Your task to perform on an android device: Go to Wikipedia Image 0: 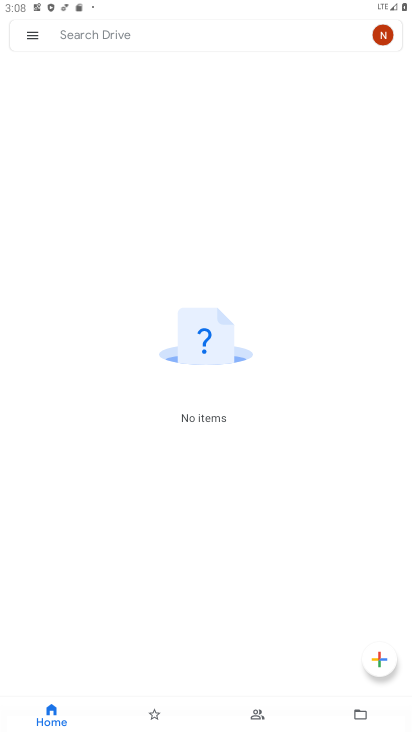
Step 0: press home button
Your task to perform on an android device: Go to Wikipedia Image 1: 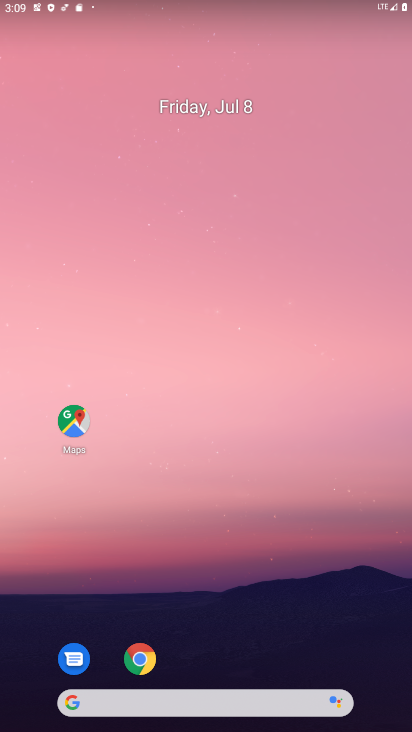
Step 1: click (151, 657)
Your task to perform on an android device: Go to Wikipedia Image 2: 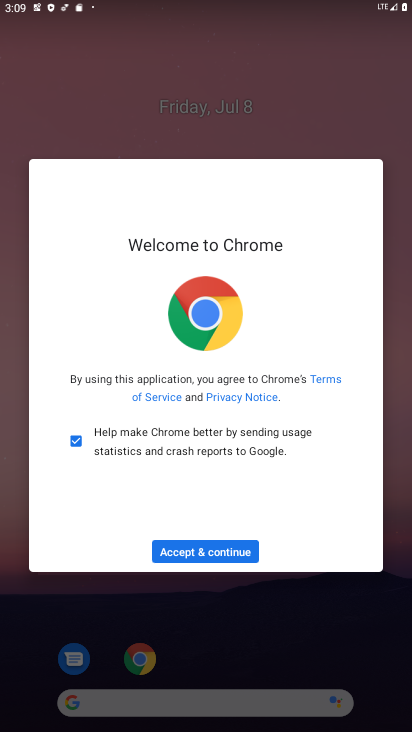
Step 2: click (232, 553)
Your task to perform on an android device: Go to Wikipedia Image 3: 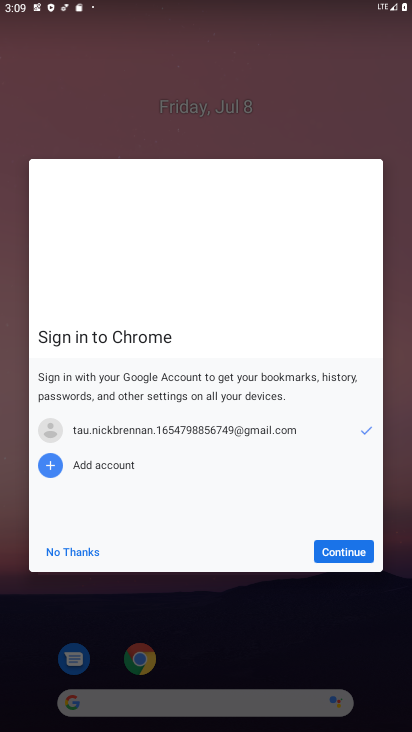
Step 3: click (346, 551)
Your task to perform on an android device: Go to Wikipedia Image 4: 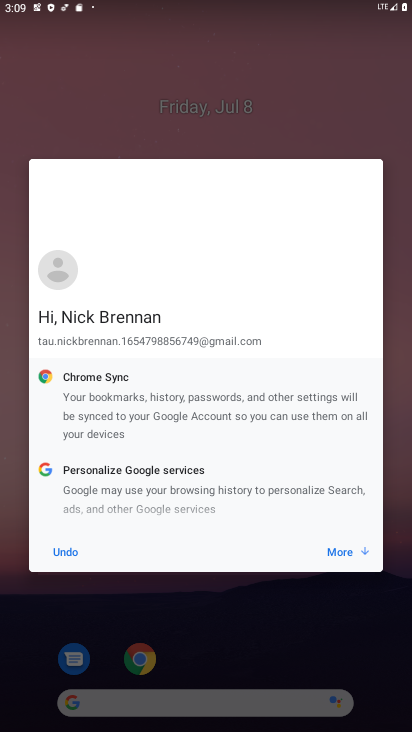
Step 4: click (343, 546)
Your task to perform on an android device: Go to Wikipedia Image 5: 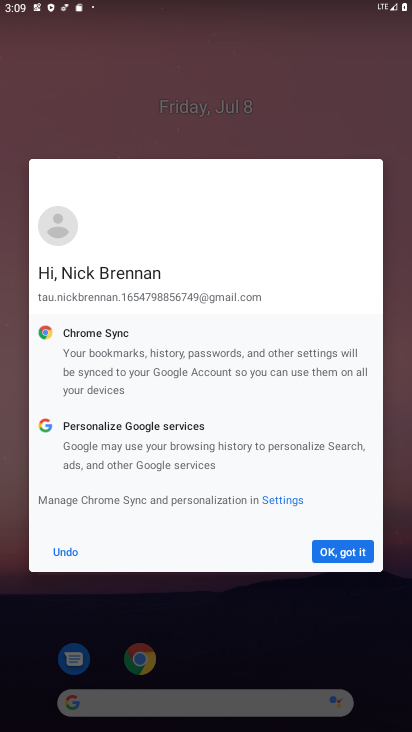
Step 5: click (338, 549)
Your task to perform on an android device: Go to Wikipedia Image 6: 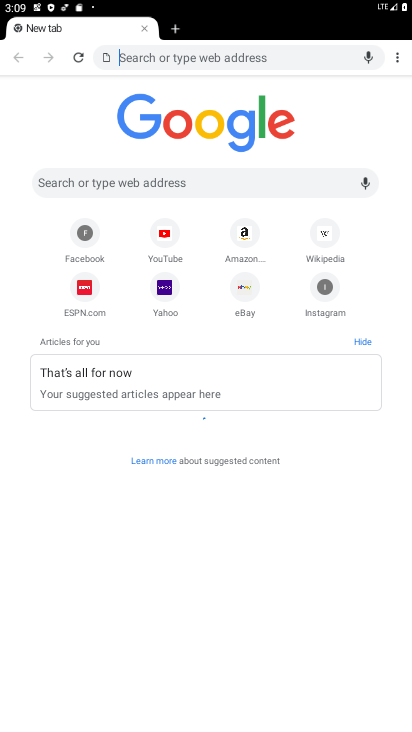
Step 6: click (314, 227)
Your task to perform on an android device: Go to Wikipedia Image 7: 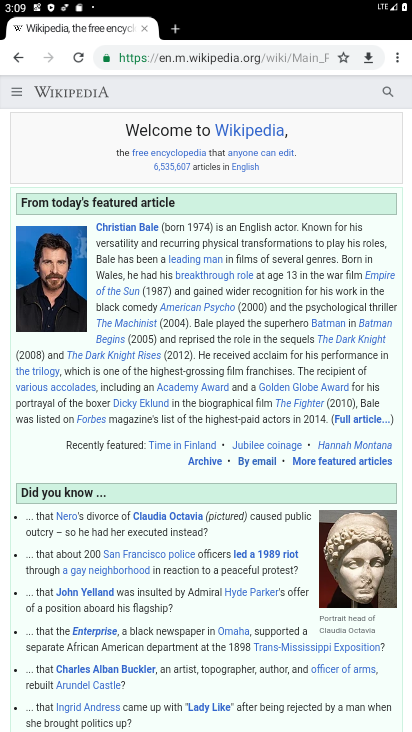
Step 7: task complete